Your task to perform on an android device: Open display settings Image 0: 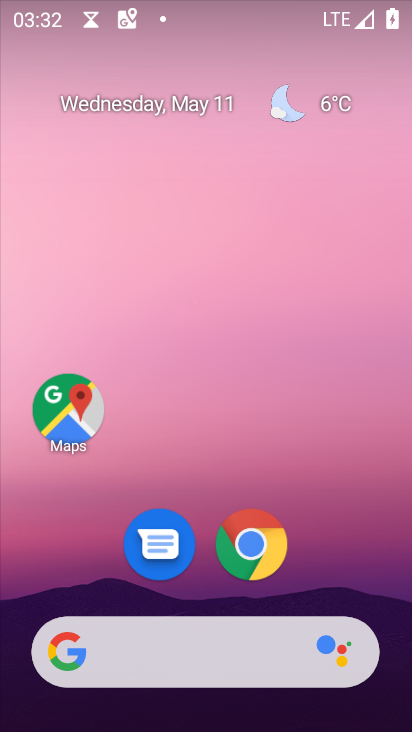
Step 0: drag from (335, 575) to (372, 62)
Your task to perform on an android device: Open display settings Image 1: 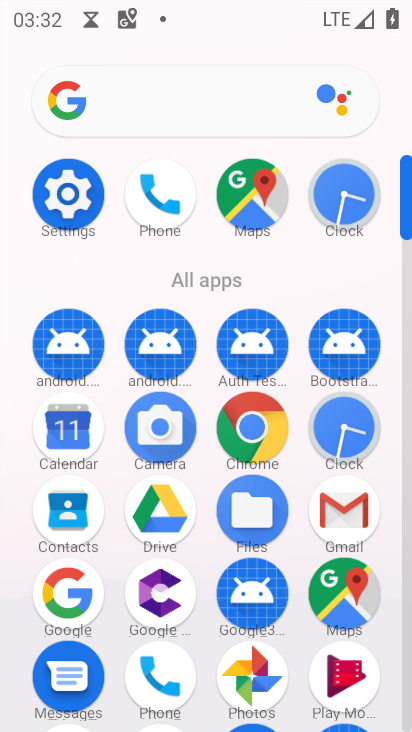
Step 1: click (59, 229)
Your task to perform on an android device: Open display settings Image 2: 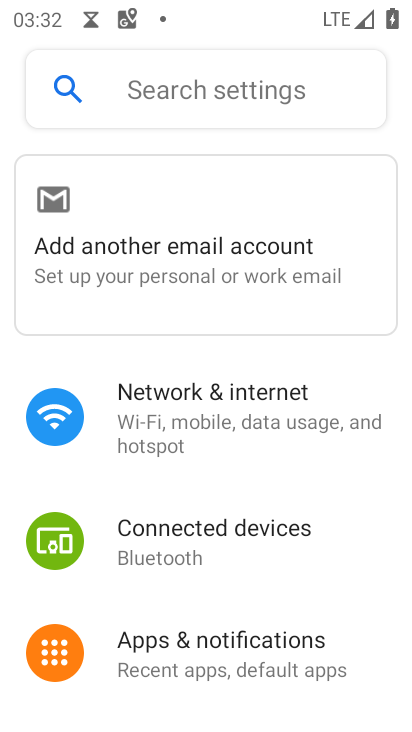
Step 2: drag from (179, 577) to (212, 207)
Your task to perform on an android device: Open display settings Image 3: 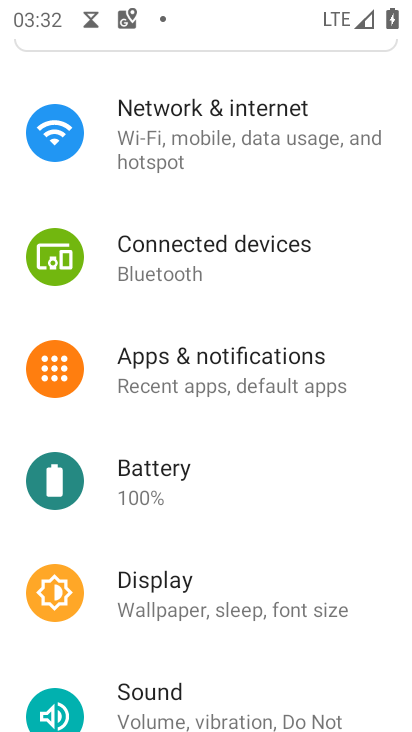
Step 3: click (148, 618)
Your task to perform on an android device: Open display settings Image 4: 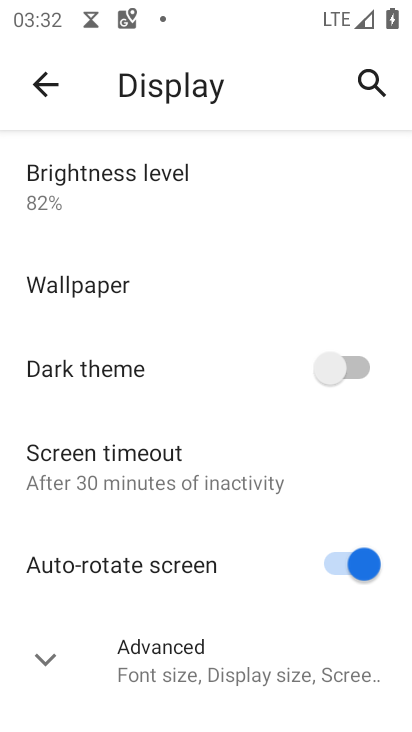
Step 4: task complete